Your task to perform on an android device: Open the stopwatch Image 0: 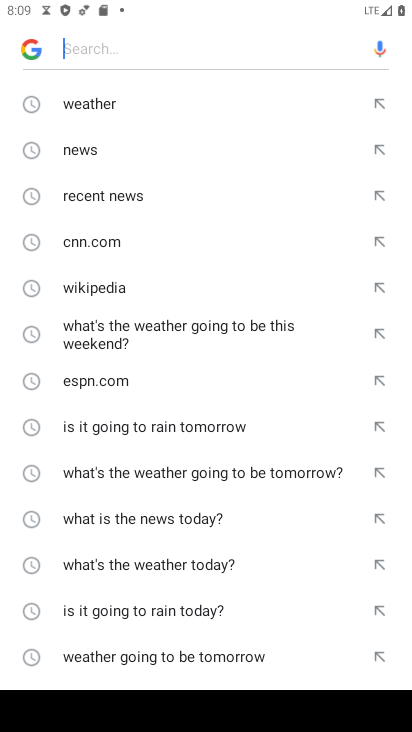
Step 0: press home button
Your task to perform on an android device: Open the stopwatch Image 1: 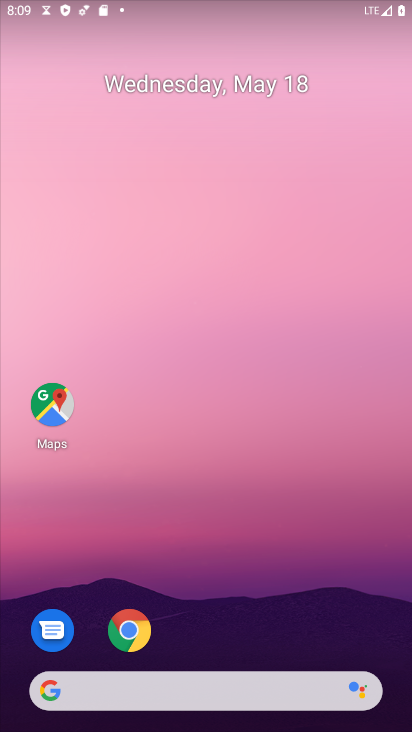
Step 1: drag from (302, 587) to (217, 90)
Your task to perform on an android device: Open the stopwatch Image 2: 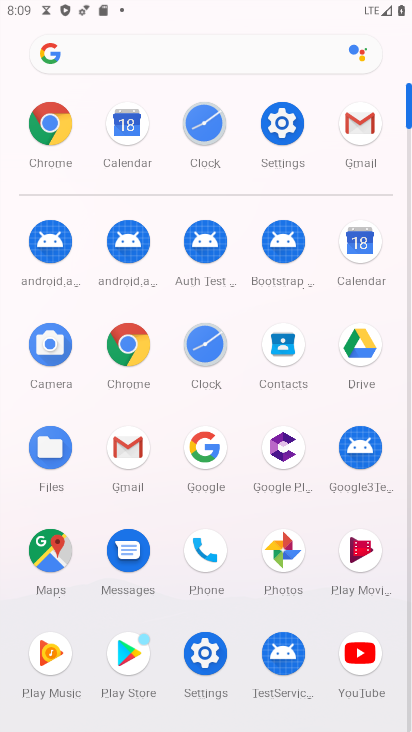
Step 2: click (196, 118)
Your task to perform on an android device: Open the stopwatch Image 3: 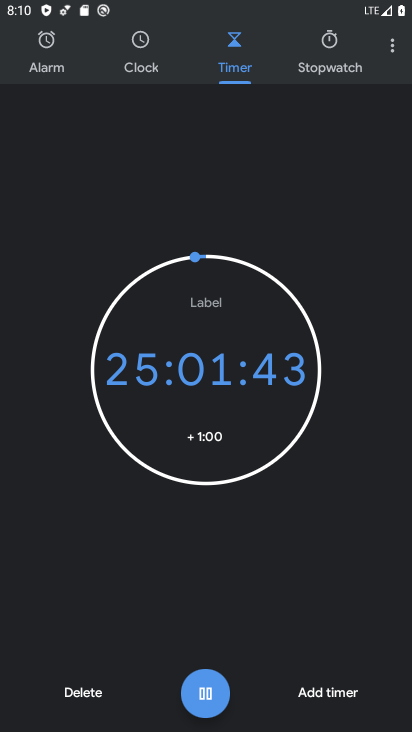
Step 3: click (400, 41)
Your task to perform on an android device: Open the stopwatch Image 4: 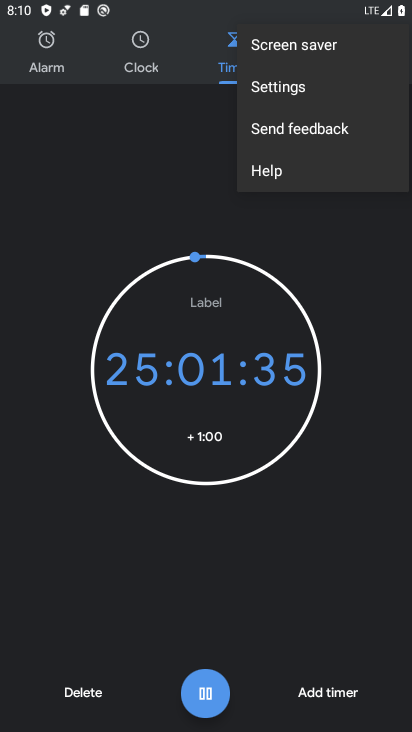
Step 4: click (86, 205)
Your task to perform on an android device: Open the stopwatch Image 5: 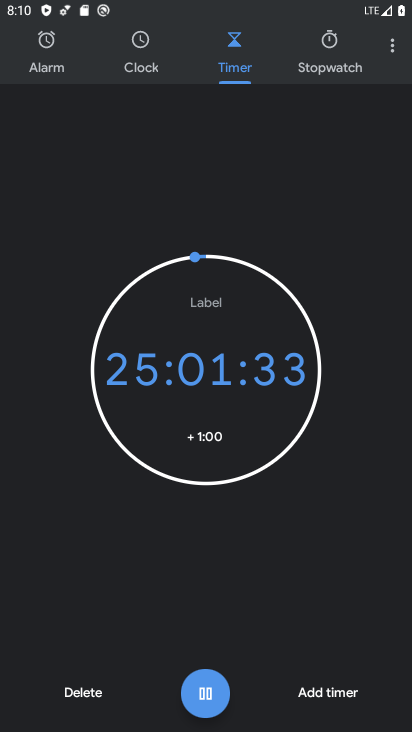
Step 5: click (314, 69)
Your task to perform on an android device: Open the stopwatch Image 6: 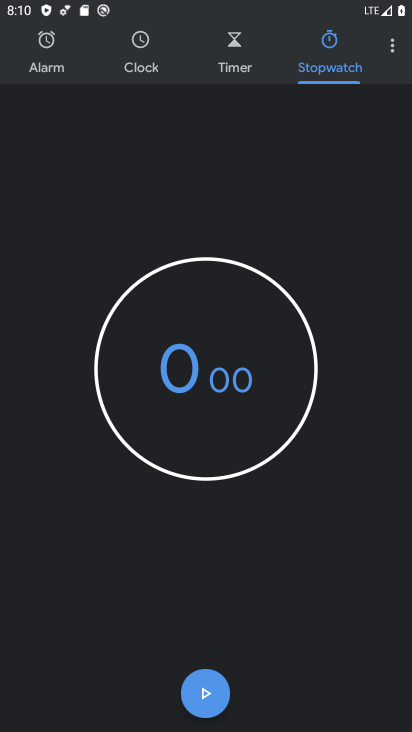
Step 6: task complete